Your task to perform on an android device: Show me popular games on the Play Store Image 0: 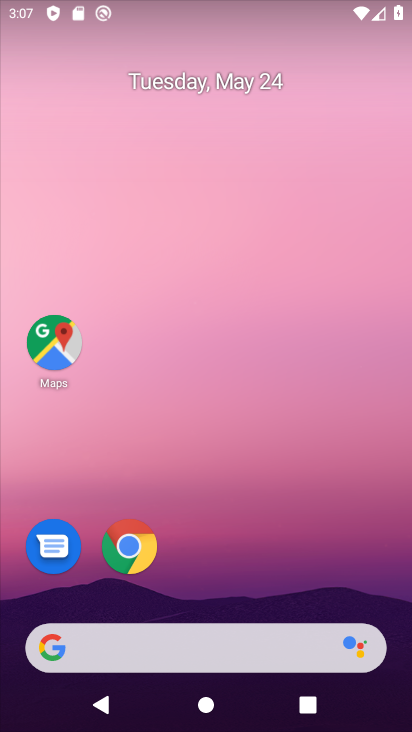
Step 0: drag from (223, 402) to (161, 104)
Your task to perform on an android device: Show me popular games on the Play Store Image 1: 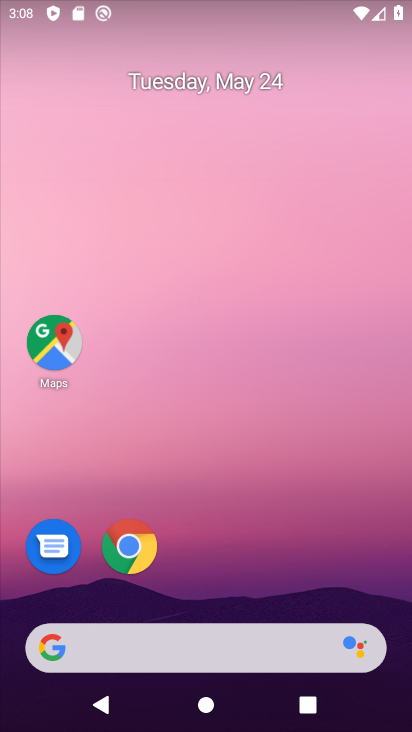
Step 1: click (164, 104)
Your task to perform on an android device: Show me popular games on the Play Store Image 2: 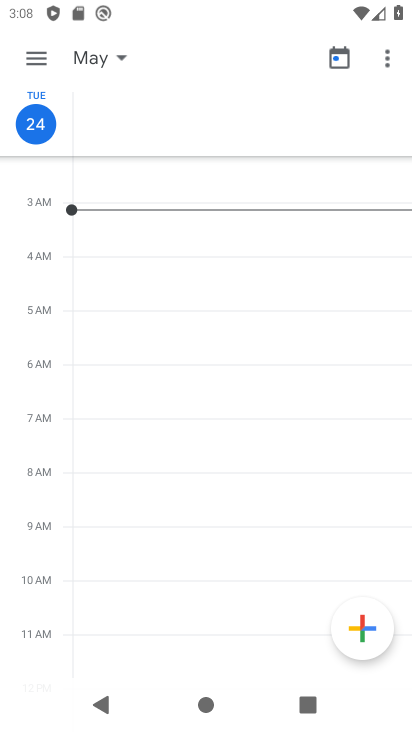
Step 2: click (281, 33)
Your task to perform on an android device: Show me popular games on the Play Store Image 3: 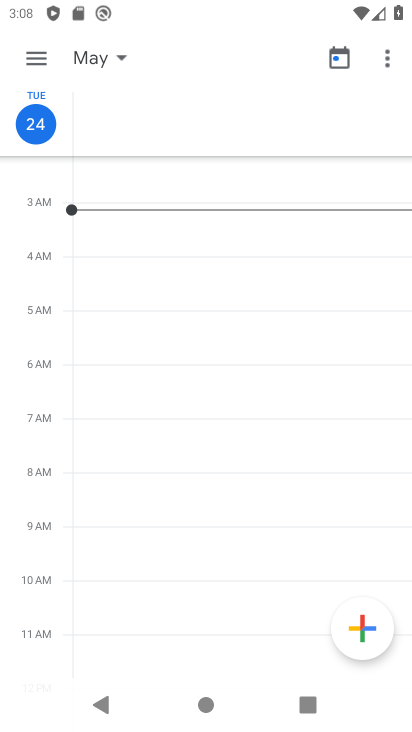
Step 3: drag from (333, 160) to (254, 118)
Your task to perform on an android device: Show me popular games on the Play Store Image 4: 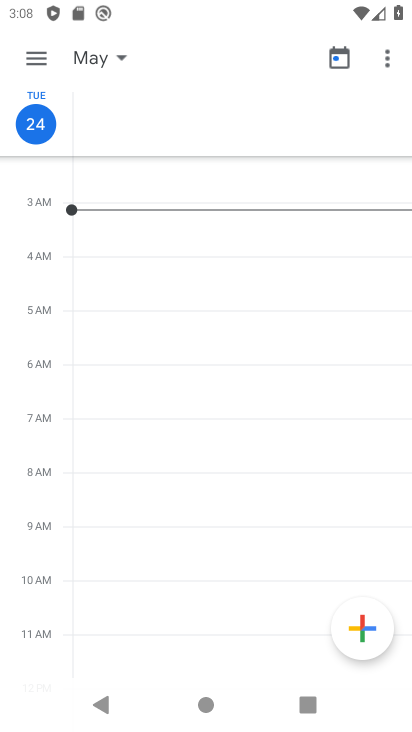
Step 4: press back button
Your task to perform on an android device: Show me popular games on the Play Store Image 5: 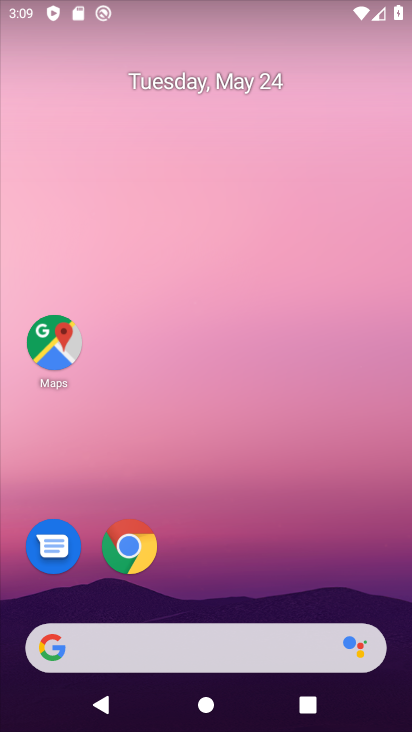
Step 5: drag from (302, 682) to (315, 202)
Your task to perform on an android device: Show me popular games on the Play Store Image 6: 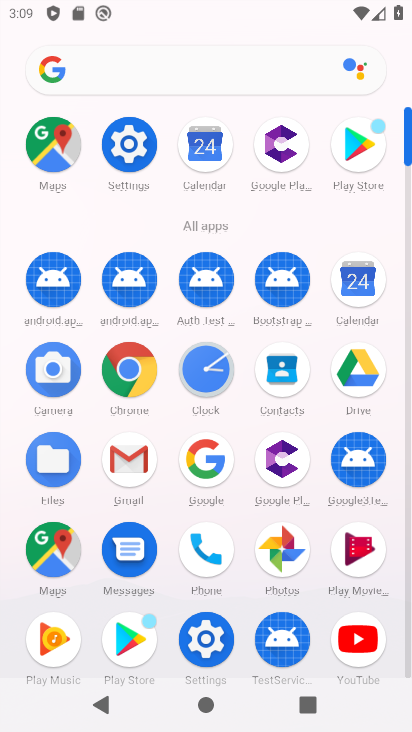
Step 6: click (109, 636)
Your task to perform on an android device: Show me popular games on the Play Store Image 7: 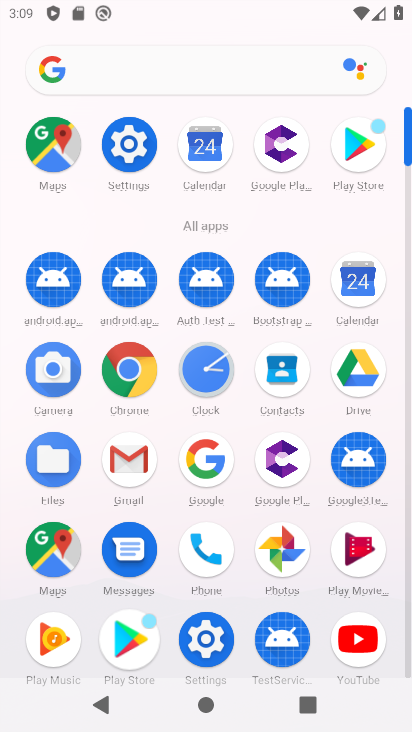
Step 7: click (115, 631)
Your task to perform on an android device: Show me popular games on the Play Store Image 8: 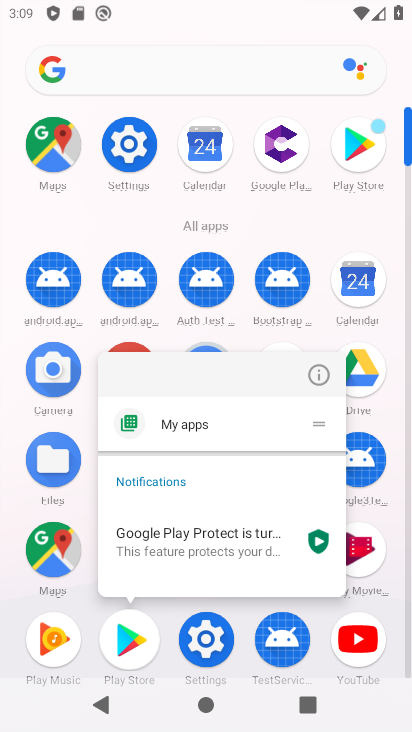
Step 8: click (121, 628)
Your task to perform on an android device: Show me popular games on the Play Store Image 9: 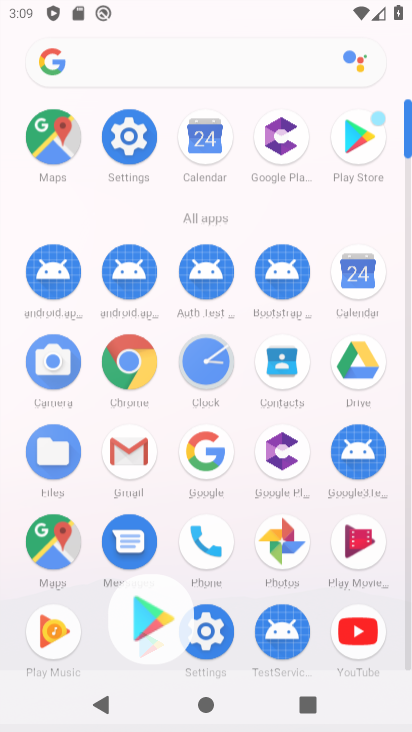
Step 9: click (122, 627)
Your task to perform on an android device: Show me popular games on the Play Store Image 10: 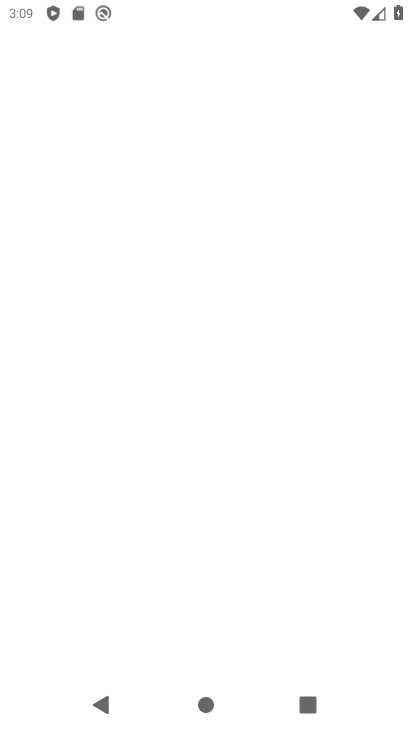
Step 10: click (125, 627)
Your task to perform on an android device: Show me popular games on the Play Store Image 11: 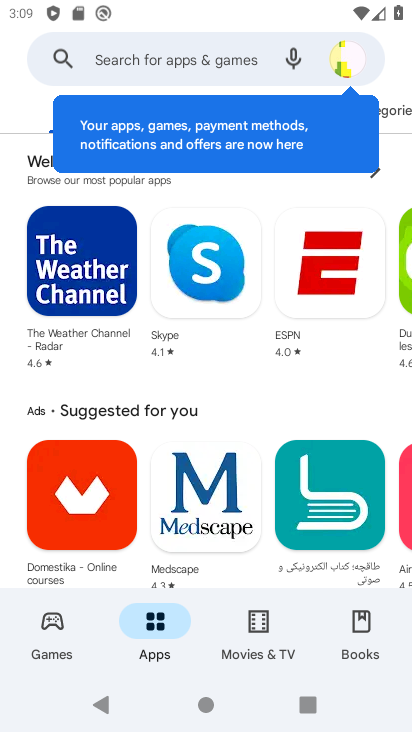
Step 11: click (131, 65)
Your task to perform on an android device: Show me popular games on the Play Store Image 12: 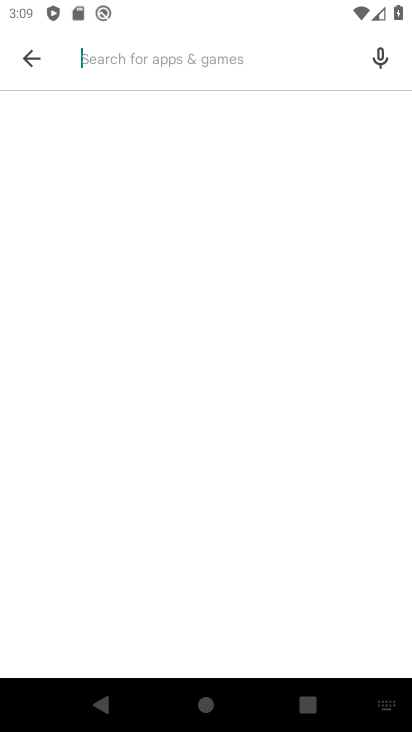
Step 12: type "popular games"
Your task to perform on an android device: Show me popular games on the Play Store Image 13: 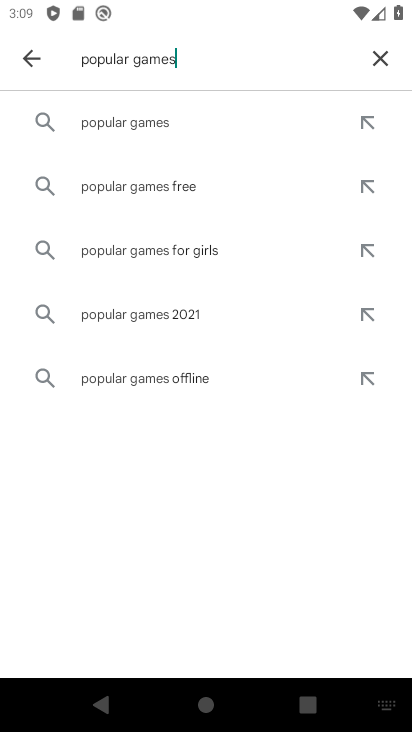
Step 13: click (80, 138)
Your task to perform on an android device: Show me popular games on the Play Store Image 14: 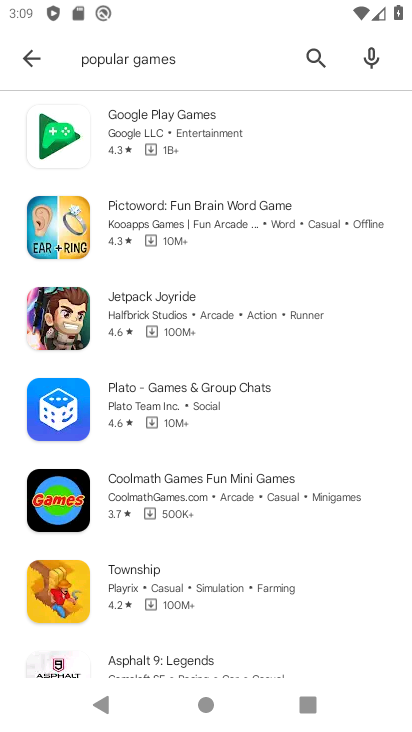
Step 14: task complete